Your task to perform on an android device: refresh tabs in the chrome app Image 0: 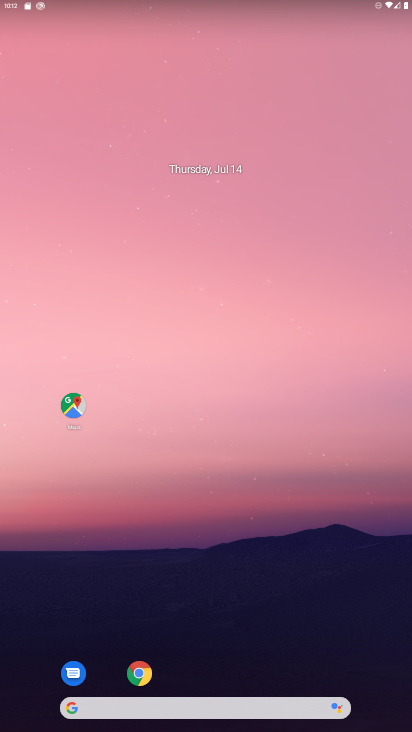
Step 0: drag from (241, 573) to (280, 590)
Your task to perform on an android device: refresh tabs in the chrome app Image 1: 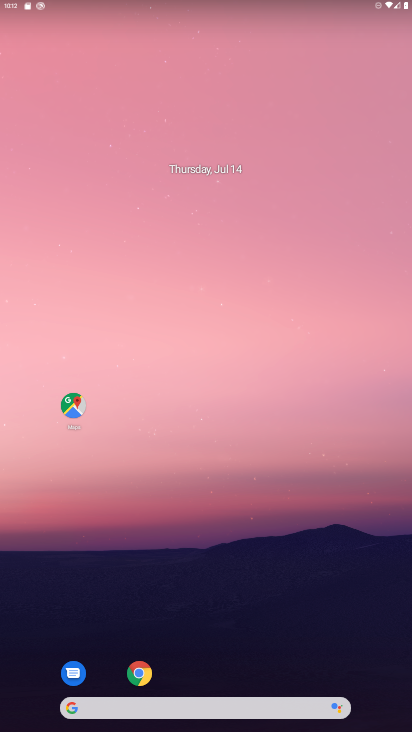
Step 1: click (137, 678)
Your task to perform on an android device: refresh tabs in the chrome app Image 2: 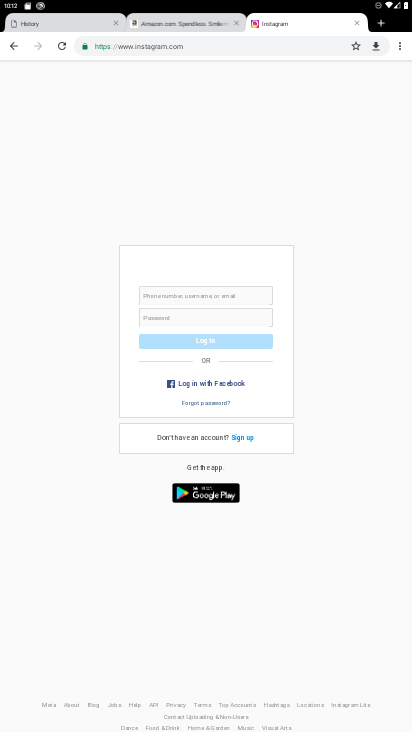
Step 2: click (56, 45)
Your task to perform on an android device: refresh tabs in the chrome app Image 3: 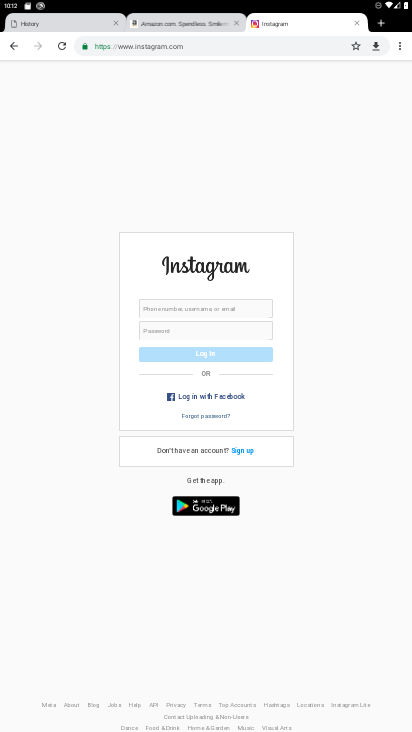
Step 3: task complete